Your task to perform on an android device: toggle sleep mode Image 0: 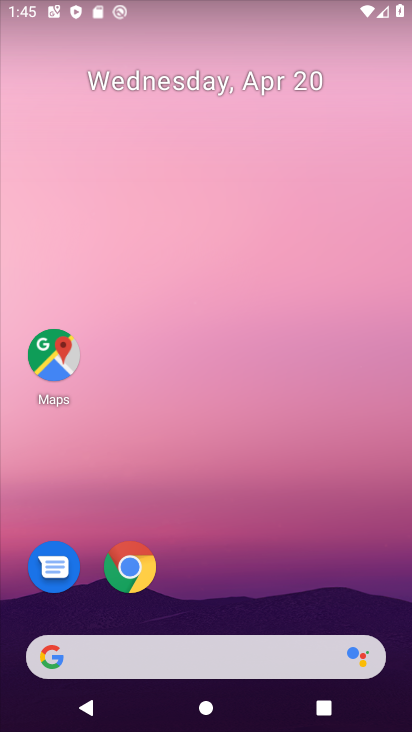
Step 0: drag from (249, 497) to (250, 143)
Your task to perform on an android device: toggle sleep mode Image 1: 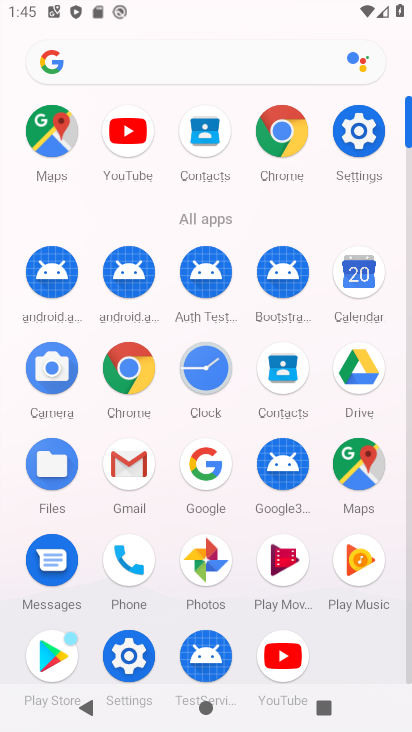
Step 1: click (345, 138)
Your task to perform on an android device: toggle sleep mode Image 2: 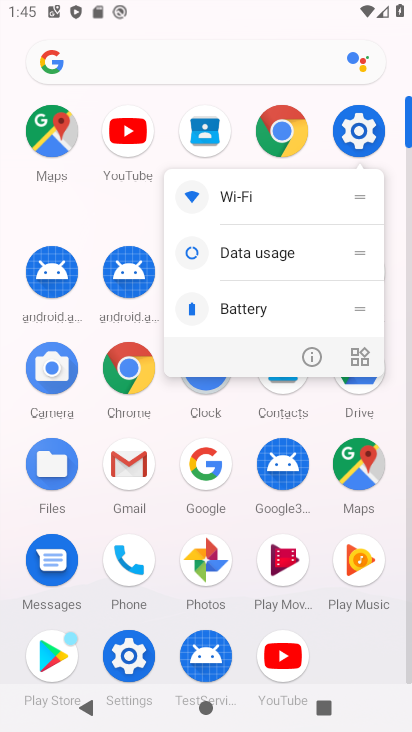
Step 2: click (351, 136)
Your task to perform on an android device: toggle sleep mode Image 3: 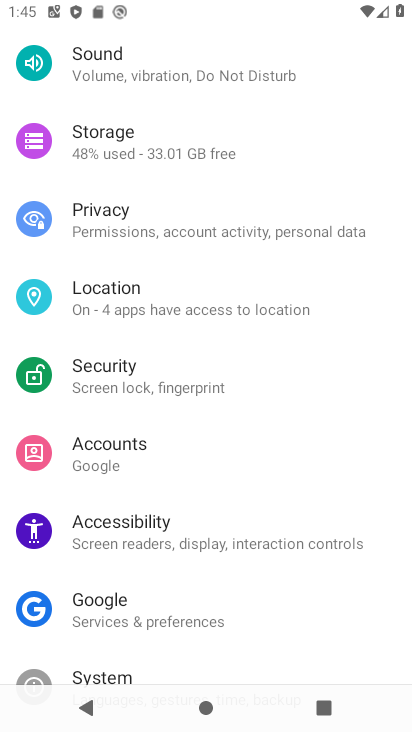
Step 3: drag from (329, 151) to (316, 377)
Your task to perform on an android device: toggle sleep mode Image 4: 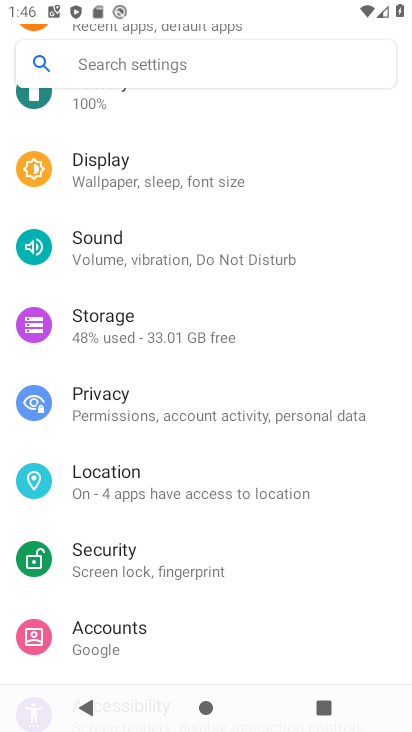
Step 4: click (179, 190)
Your task to perform on an android device: toggle sleep mode Image 5: 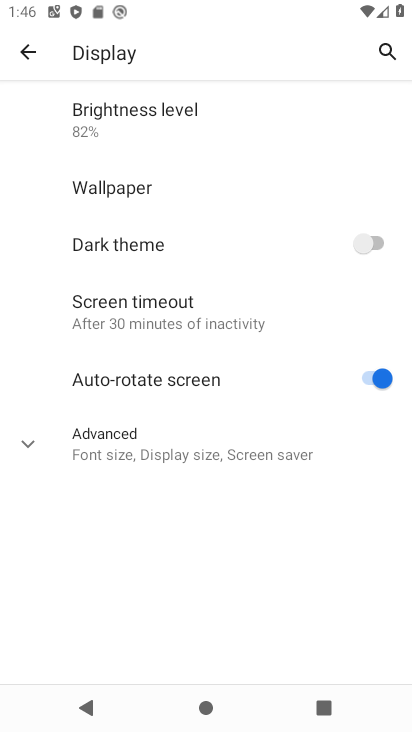
Step 5: click (28, 435)
Your task to perform on an android device: toggle sleep mode Image 6: 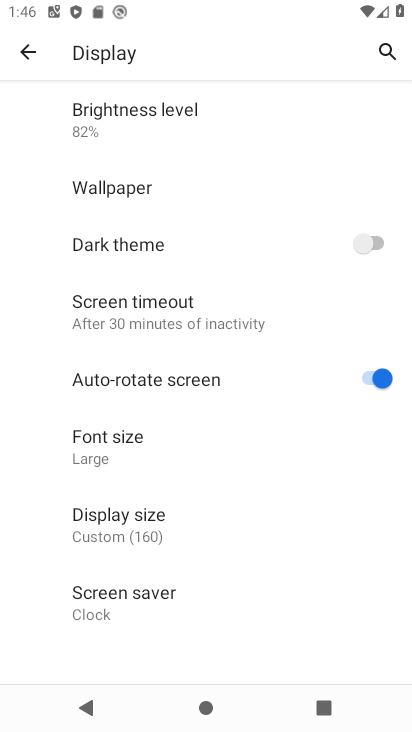
Step 6: task complete